Your task to perform on an android device: Open settings on Google Maps Image 0: 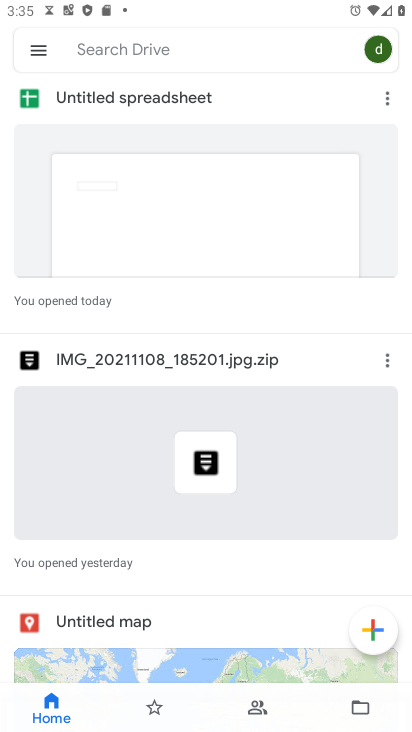
Step 0: press home button
Your task to perform on an android device: Open settings on Google Maps Image 1: 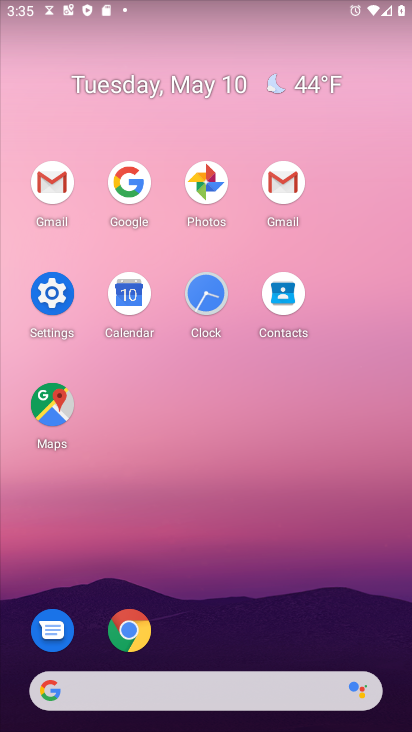
Step 1: click (56, 400)
Your task to perform on an android device: Open settings on Google Maps Image 2: 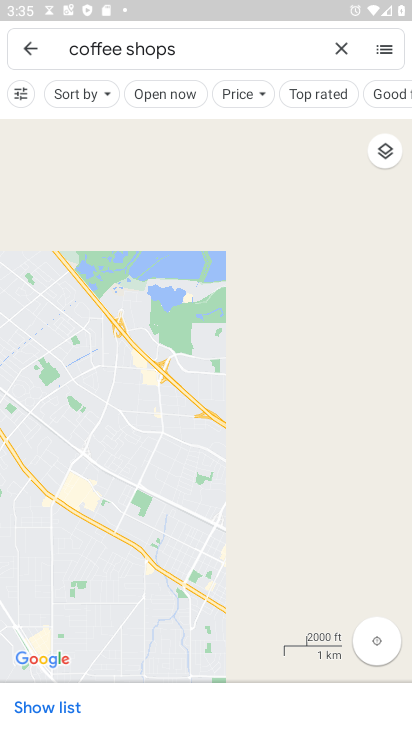
Step 2: click (25, 44)
Your task to perform on an android device: Open settings on Google Maps Image 3: 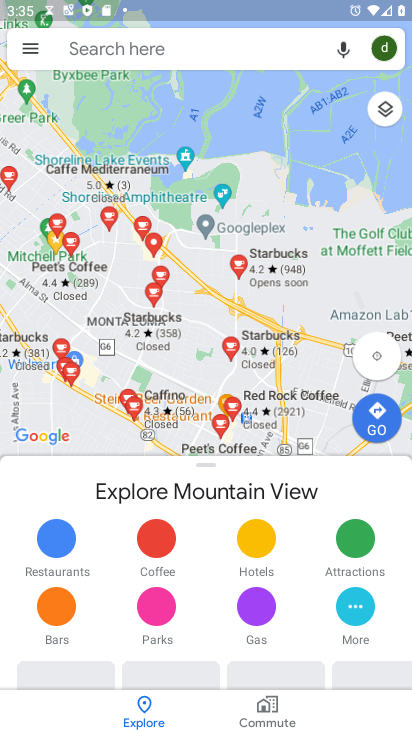
Step 3: click (31, 49)
Your task to perform on an android device: Open settings on Google Maps Image 4: 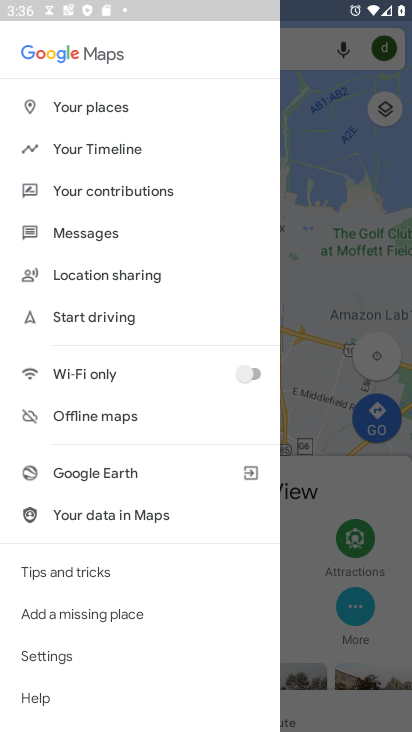
Step 4: drag from (142, 660) to (180, 229)
Your task to perform on an android device: Open settings on Google Maps Image 5: 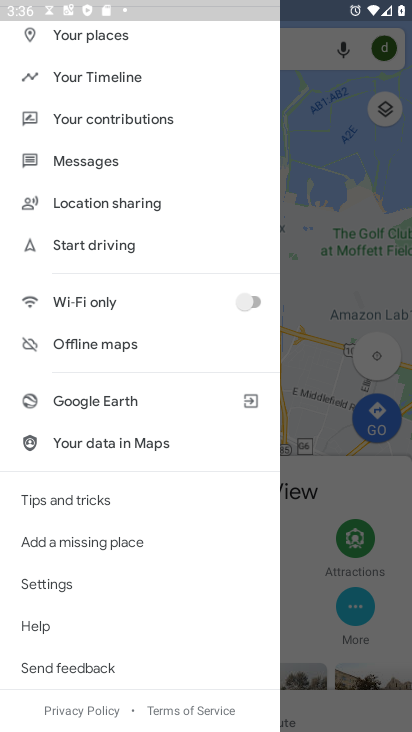
Step 5: click (64, 585)
Your task to perform on an android device: Open settings on Google Maps Image 6: 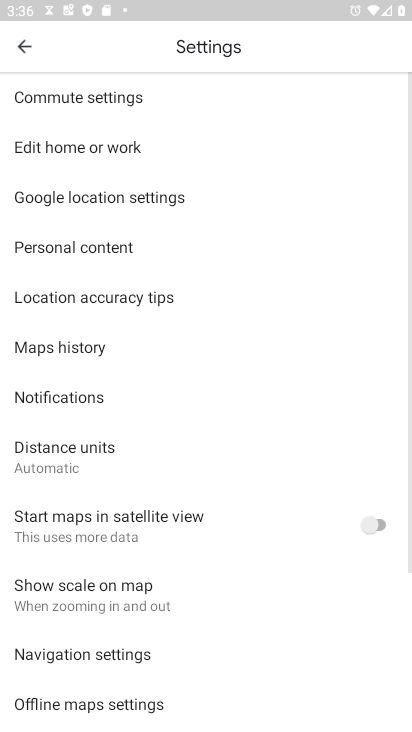
Step 6: task complete